Your task to perform on an android device: Check the news Image 0: 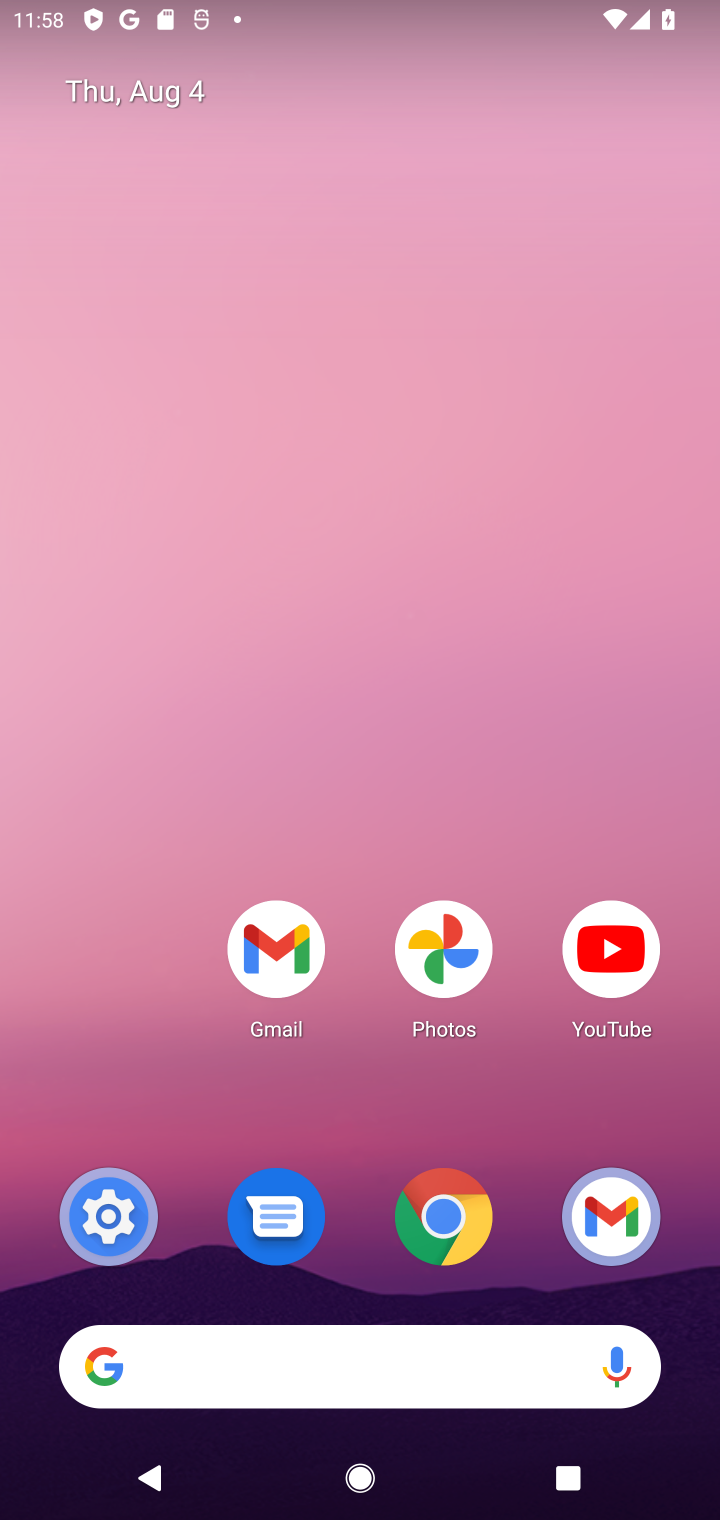
Step 0: drag from (166, 822) to (244, 339)
Your task to perform on an android device: Check the news Image 1: 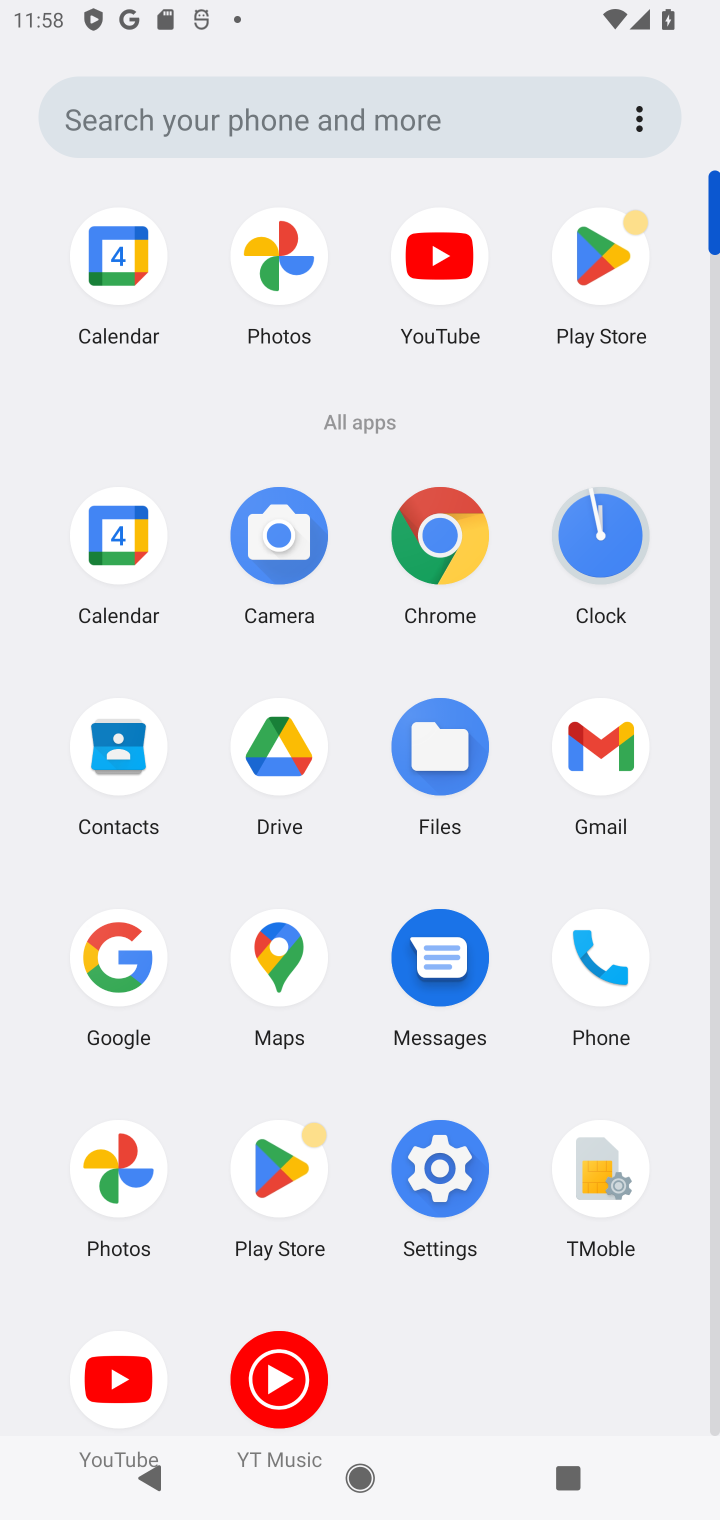
Step 1: click (322, 1513)
Your task to perform on an android device: Check the news Image 2: 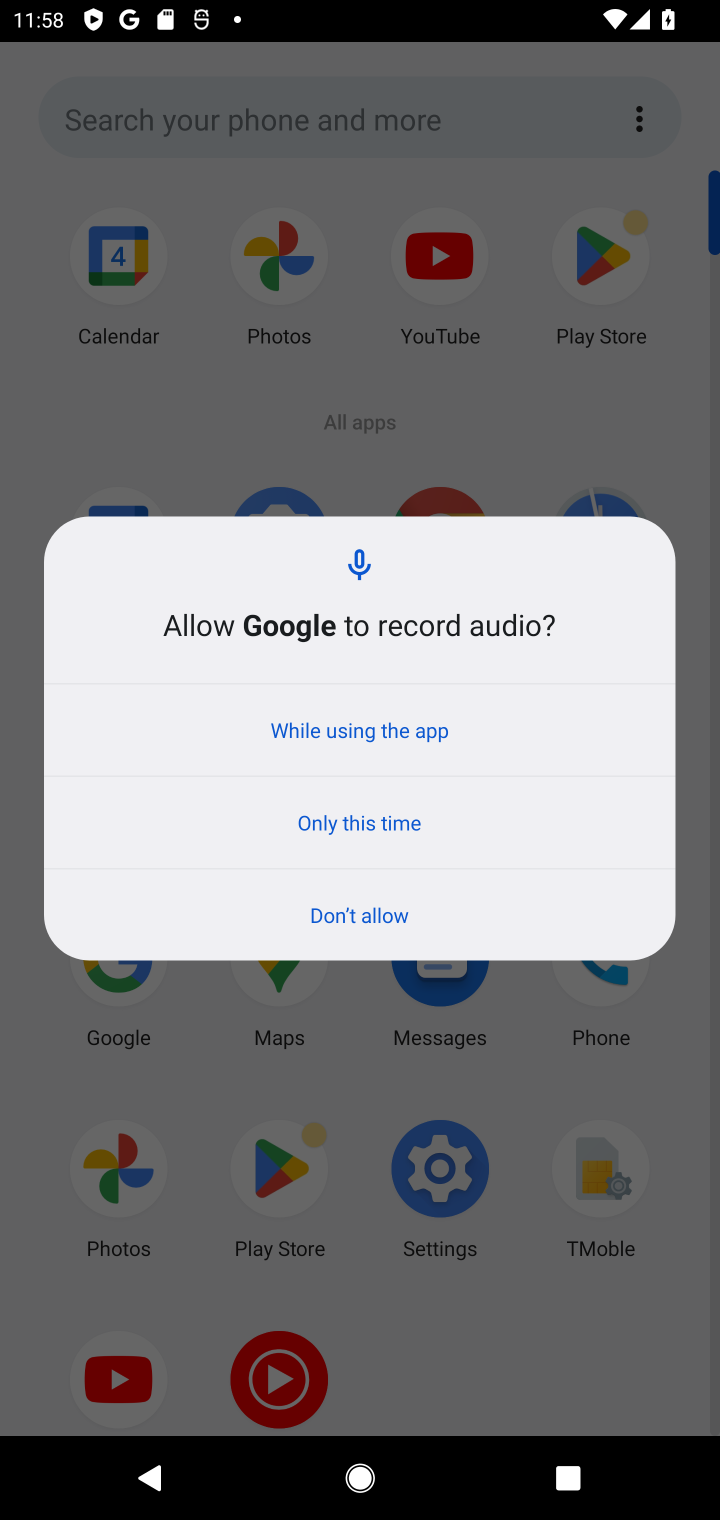
Step 2: click (374, 824)
Your task to perform on an android device: Check the news Image 3: 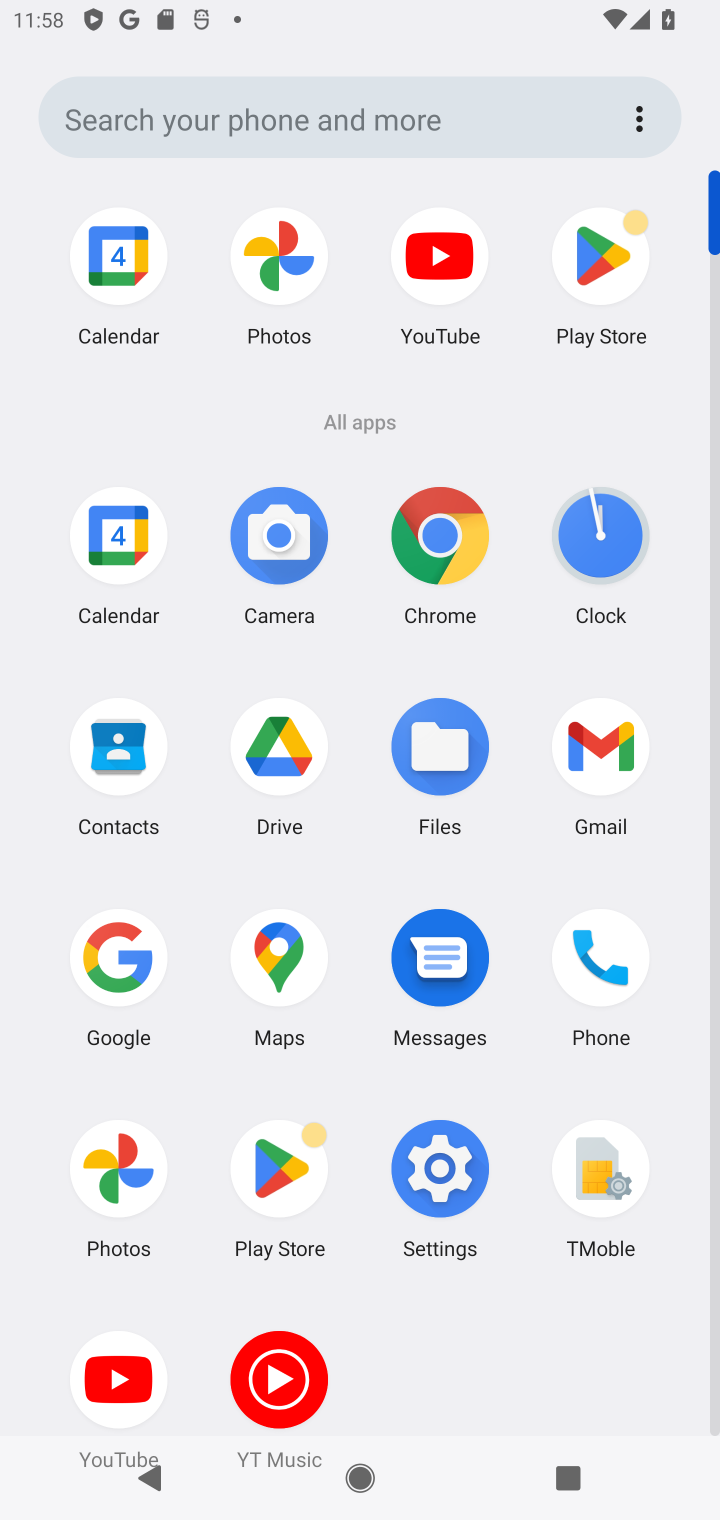
Step 3: click (438, 549)
Your task to perform on an android device: Check the news Image 4: 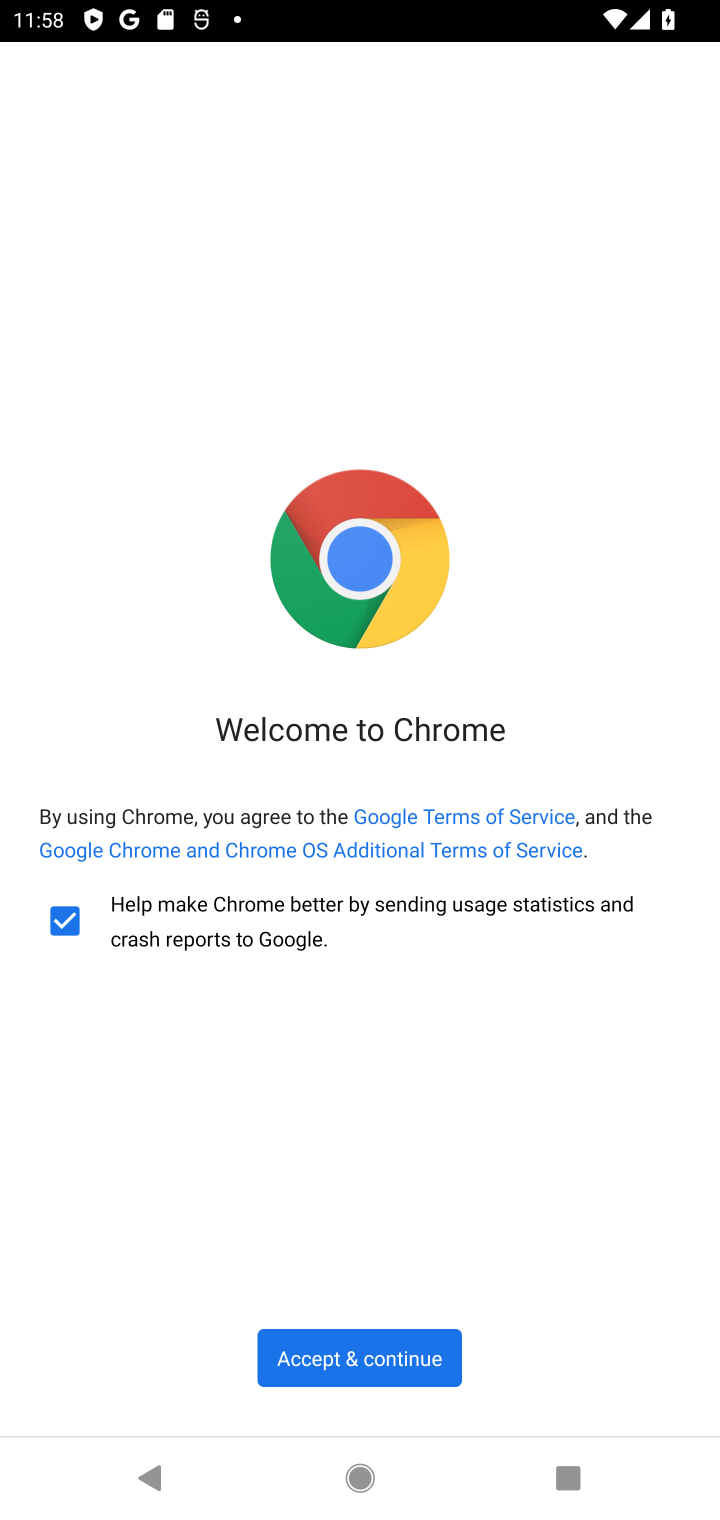
Step 4: click (319, 1364)
Your task to perform on an android device: Check the news Image 5: 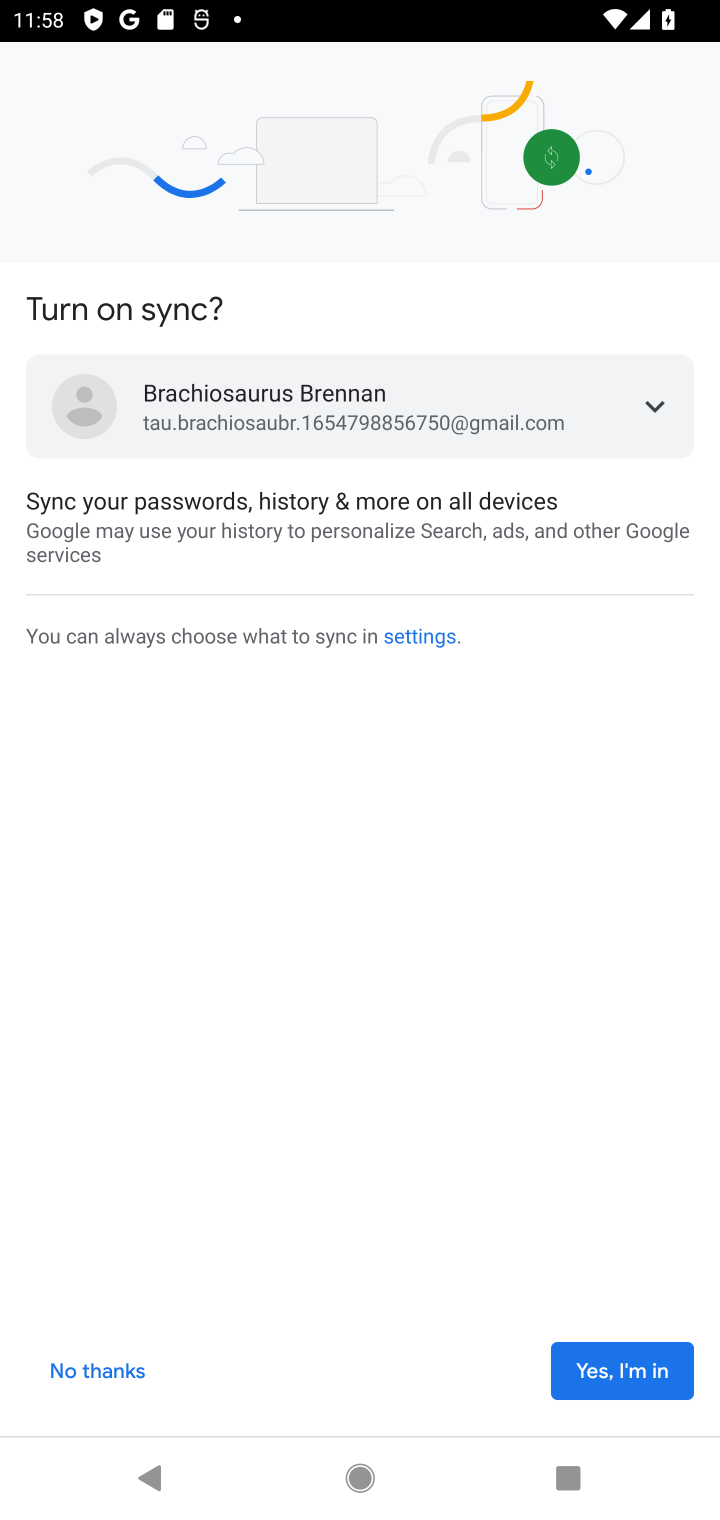
Step 5: click (635, 1382)
Your task to perform on an android device: Check the news Image 6: 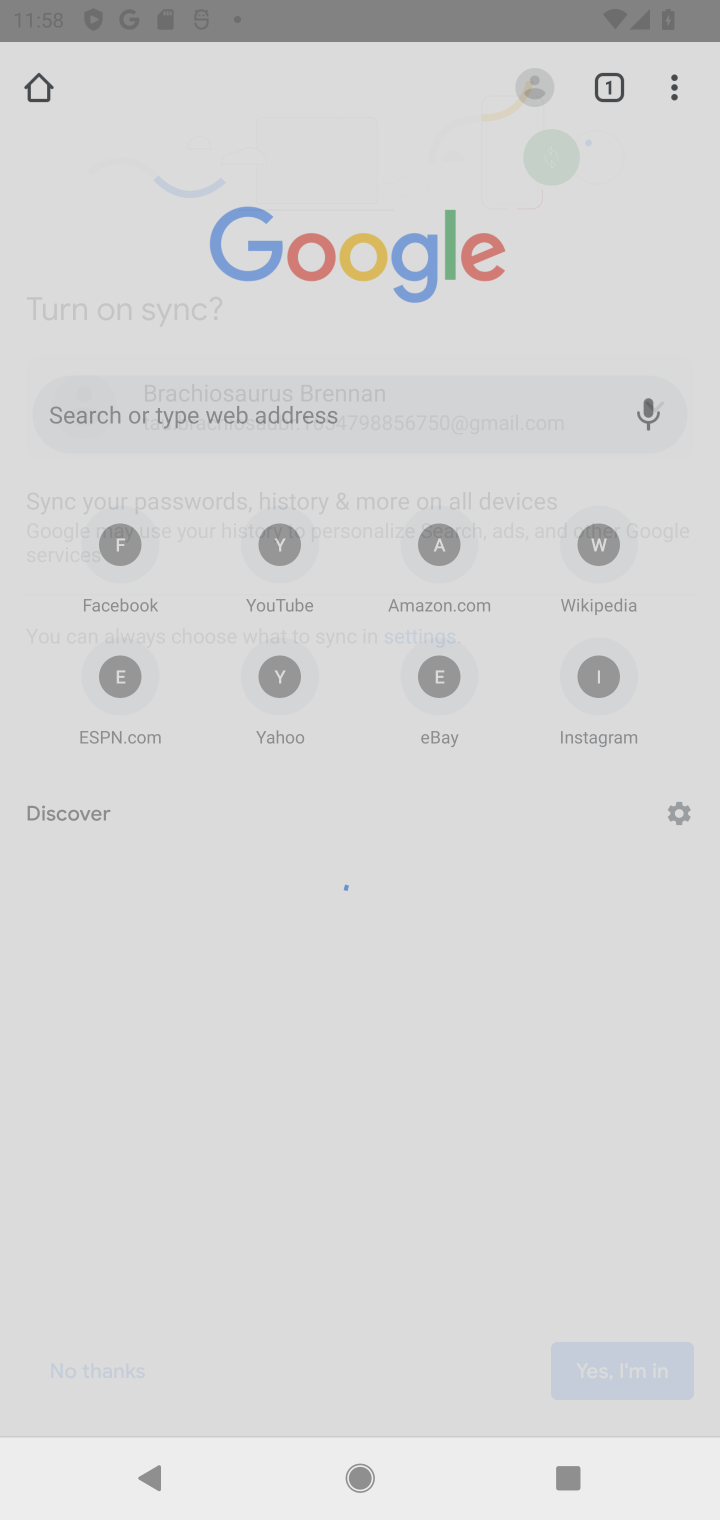
Step 6: click (611, 1361)
Your task to perform on an android device: Check the news Image 7: 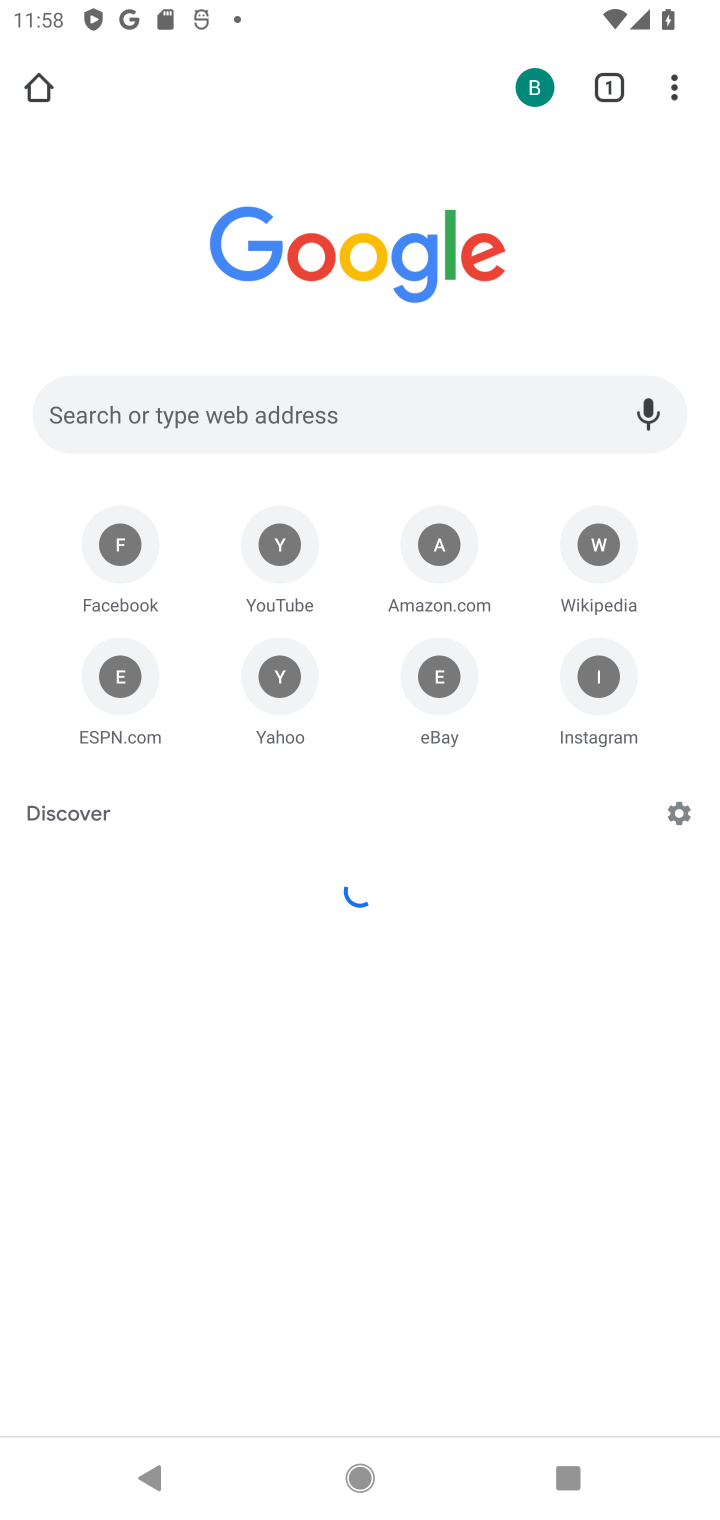
Step 7: click (146, 426)
Your task to perform on an android device: Check the news Image 8: 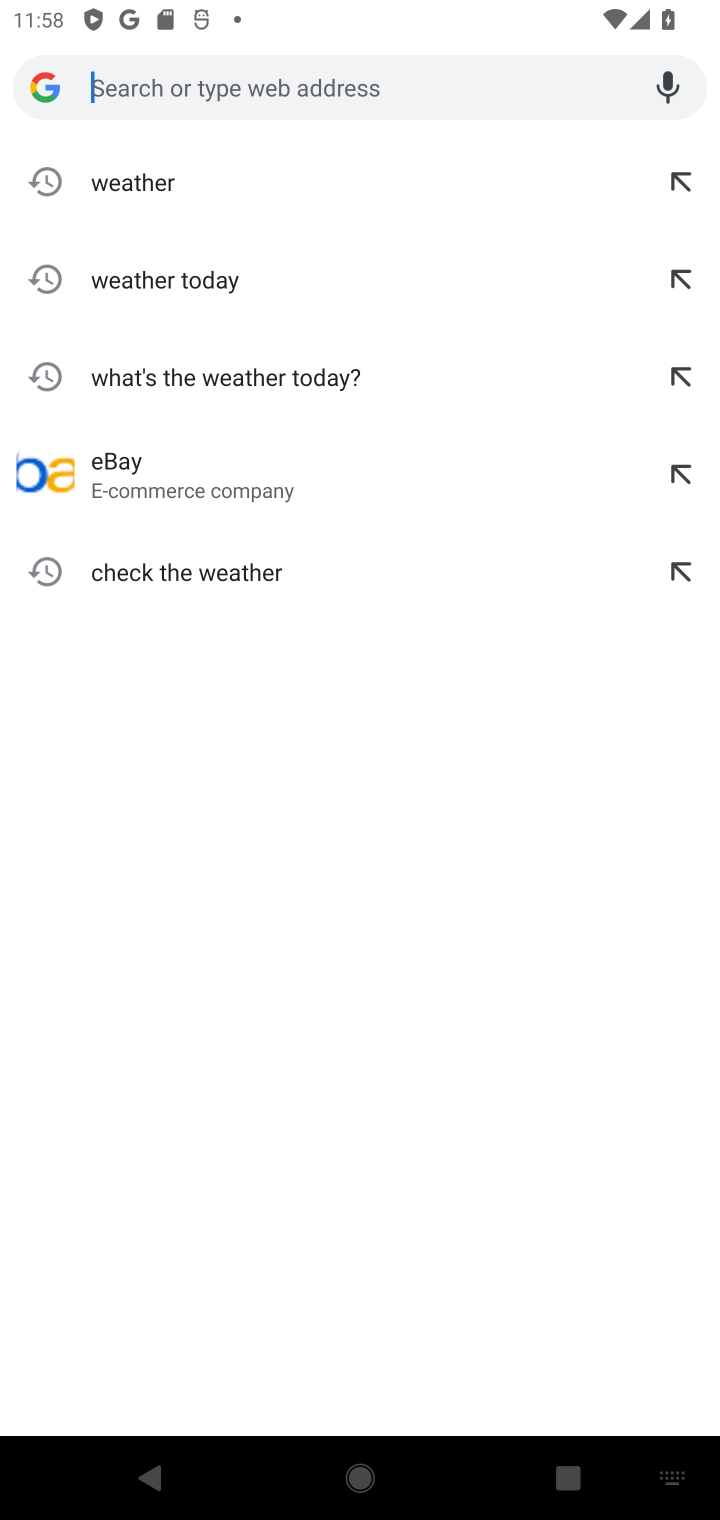
Step 8: type " Check the news"
Your task to perform on an android device: Check the news Image 9: 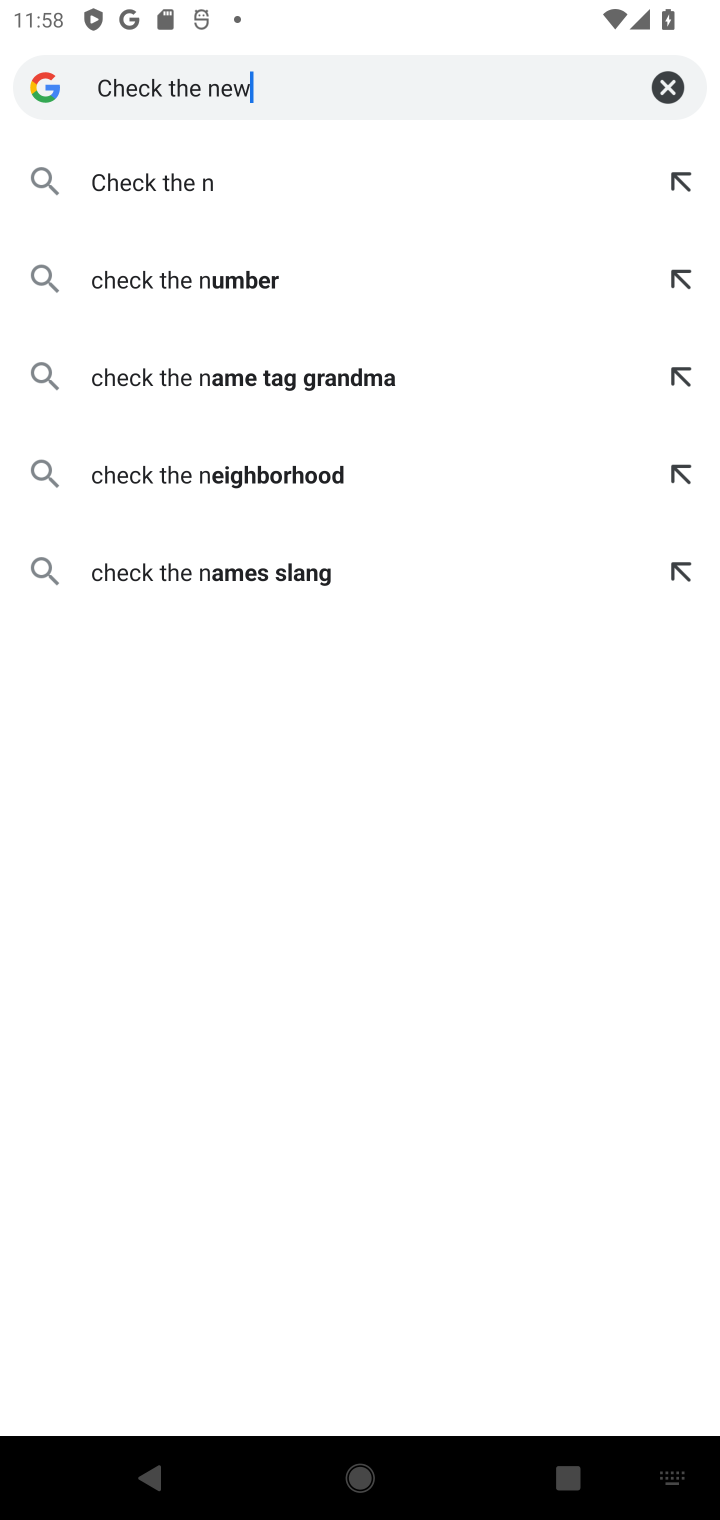
Step 9: type ""
Your task to perform on an android device: Check the news Image 10: 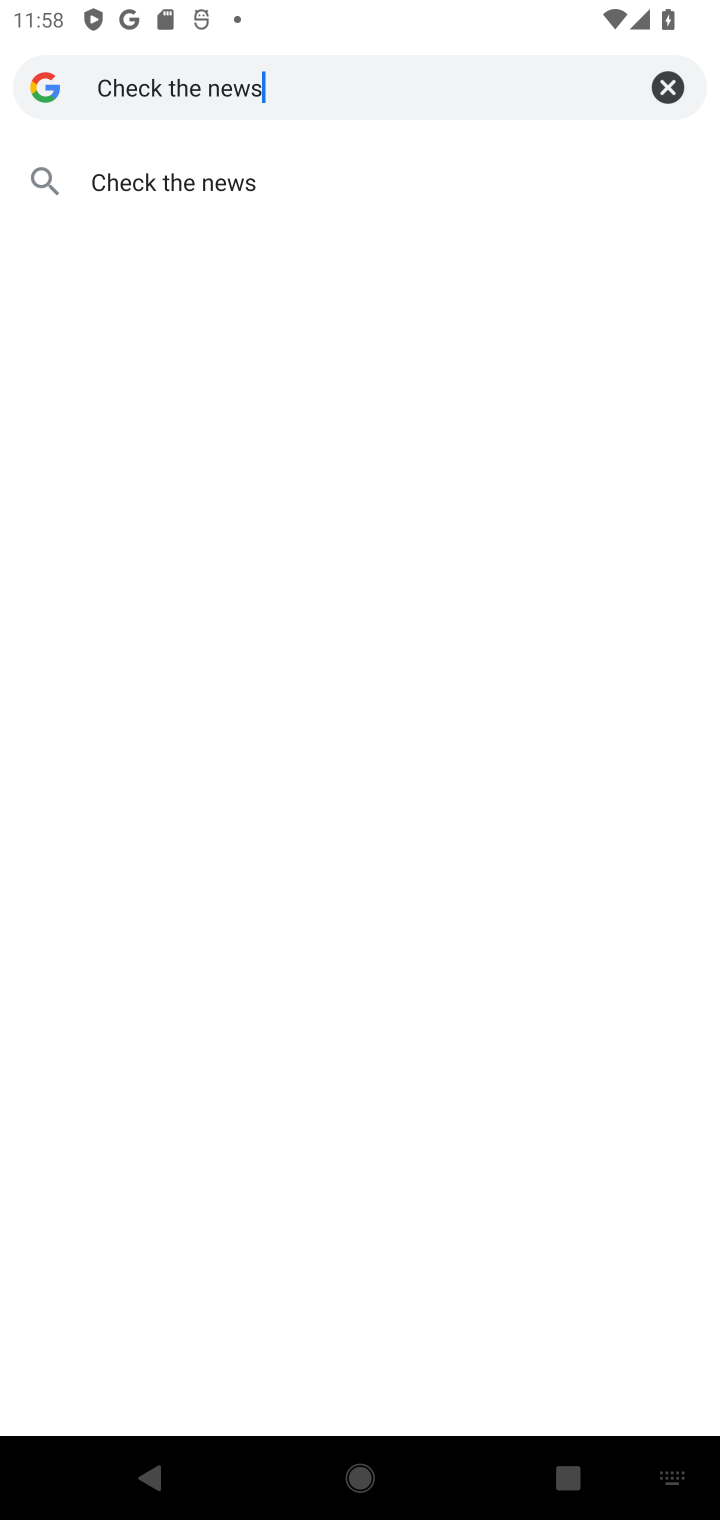
Step 10: press enter
Your task to perform on an android device: Check the news Image 11: 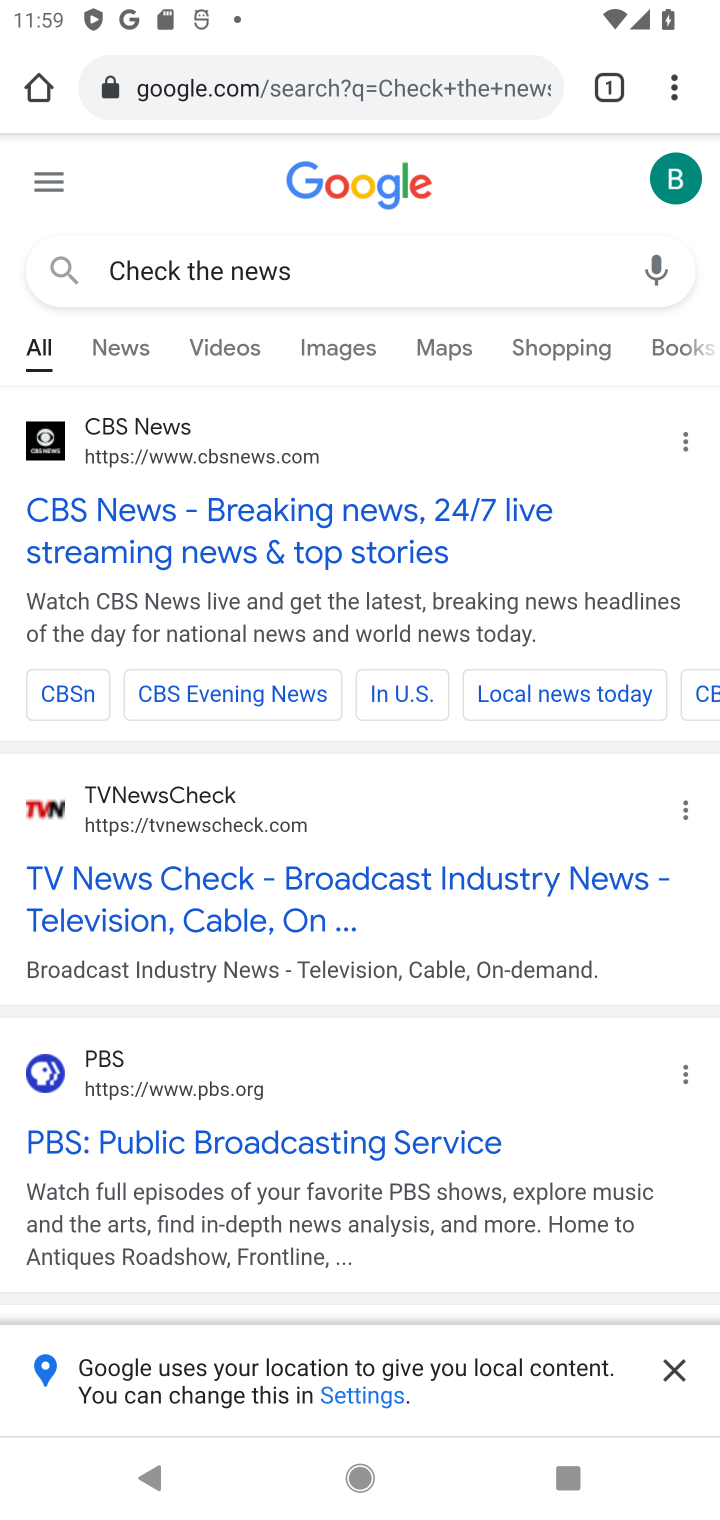
Step 11: task complete